Your task to perform on an android device: toggle location history Image 0: 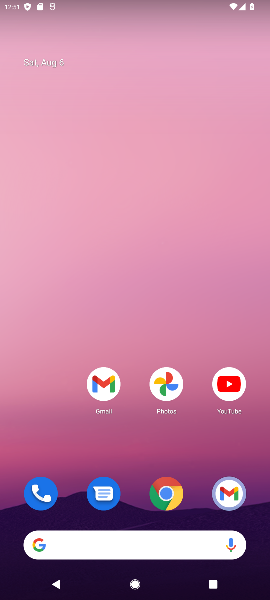
Step 0: drag from (135, 549) to (143, 12)
Your task to perform on an android device: toggle location history Image 1: 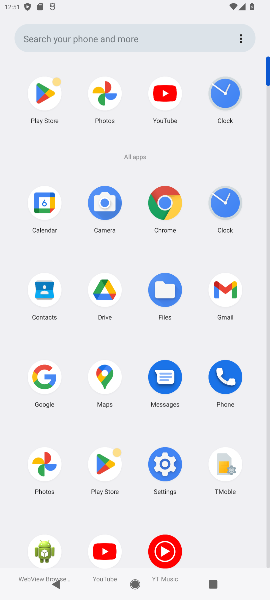
Step 1: click (164, 479)
Your task to perform on an android device: toggle location history Image 2: 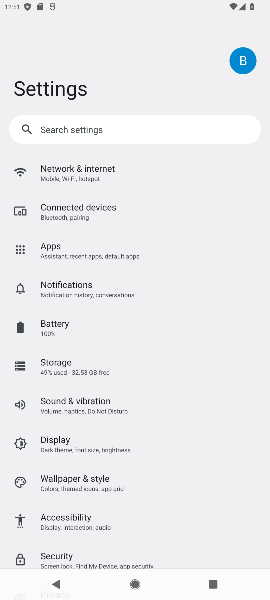
Step 2: drag from (146, 504) to (141, 140)
Your task to perform on an android device: toggle location history Image 3: 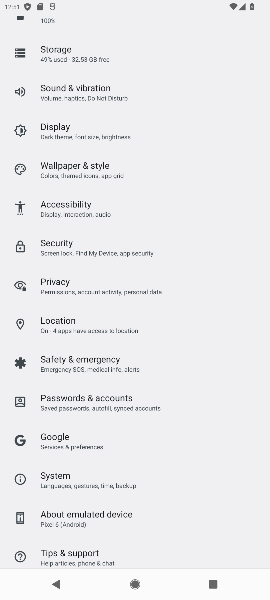
Step 3: click (62, 331)
Your task to perform on an android device: toggle location history Image 4: 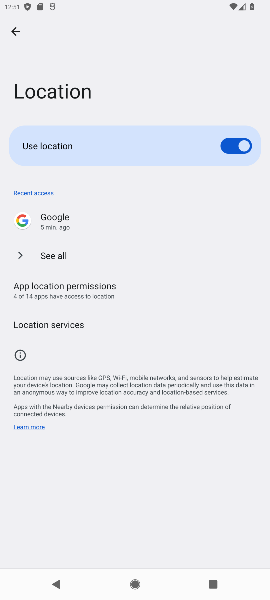
Step 4: click (87, 319)
Your task to perform on an android device: toggle location history Image 5: 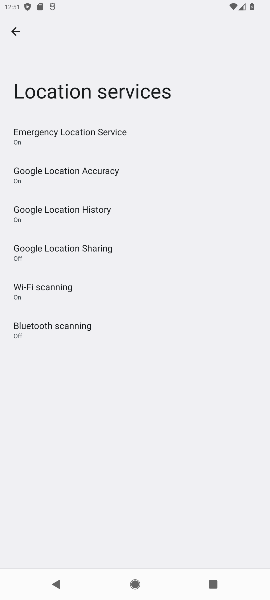
Step 5: click (94, 205)
Your task to perform on an android device: toggle location history Image 6: 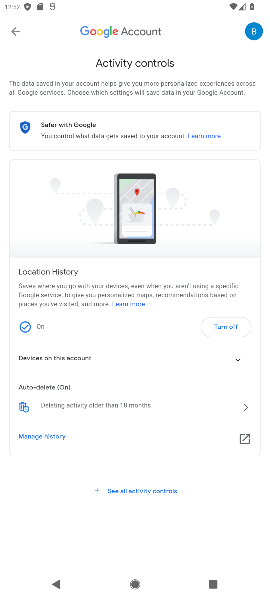
Step 6: click (233, 325)
Your task to perform on an android device: toggle location history Image 7: 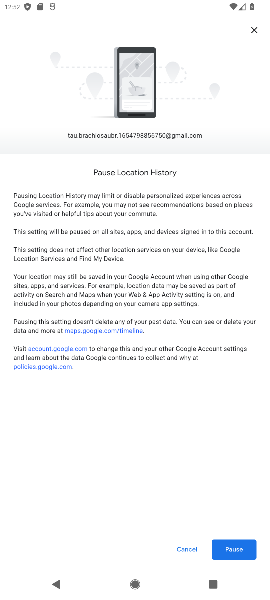
Step 7: click (236, 549)
Your task to perform on an android device: toggle location history Image 8: 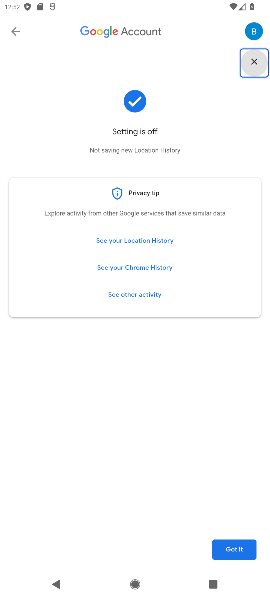
Step 8: click (233, 541)
Your task to perform on an android device: toggle location history Image 9: 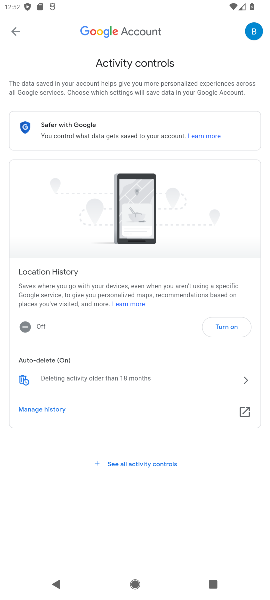
Step 9: task complete